Your task to perform on an android device: open app "Google Play Music" Image 0: 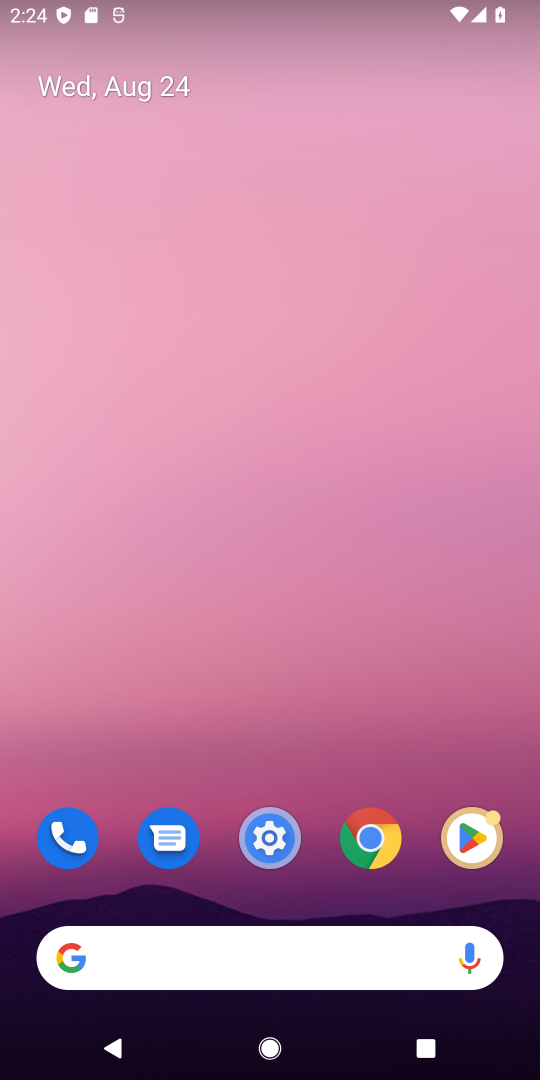
Step 0: drag from (454, 592) to (465, 66)
Your task to perform on an android device: open app "Google Play Music" Image 1: 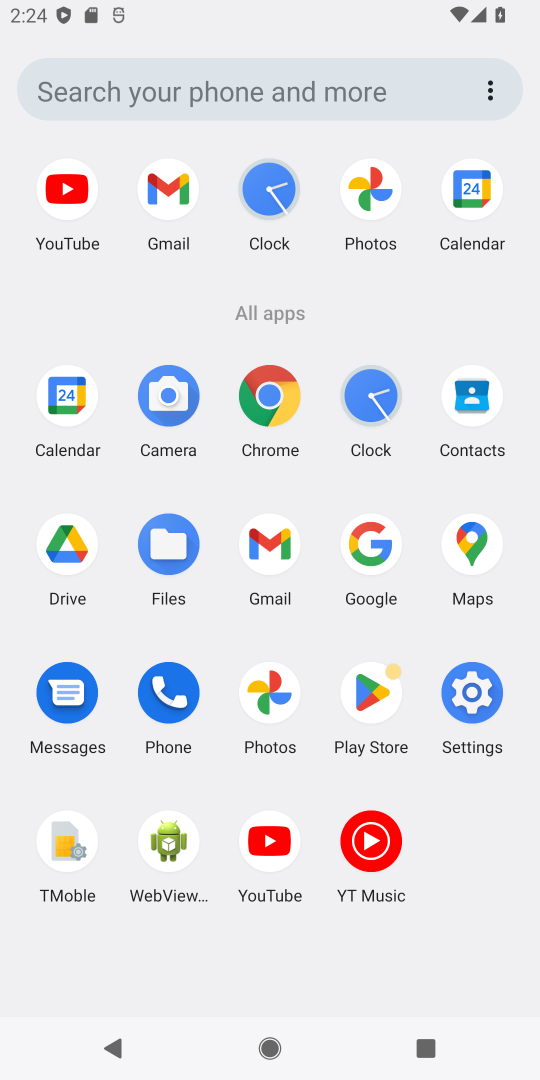
Step 1: click (360, 697)
Your task to perform on an android device: open app "Google Play Music" Image 2: 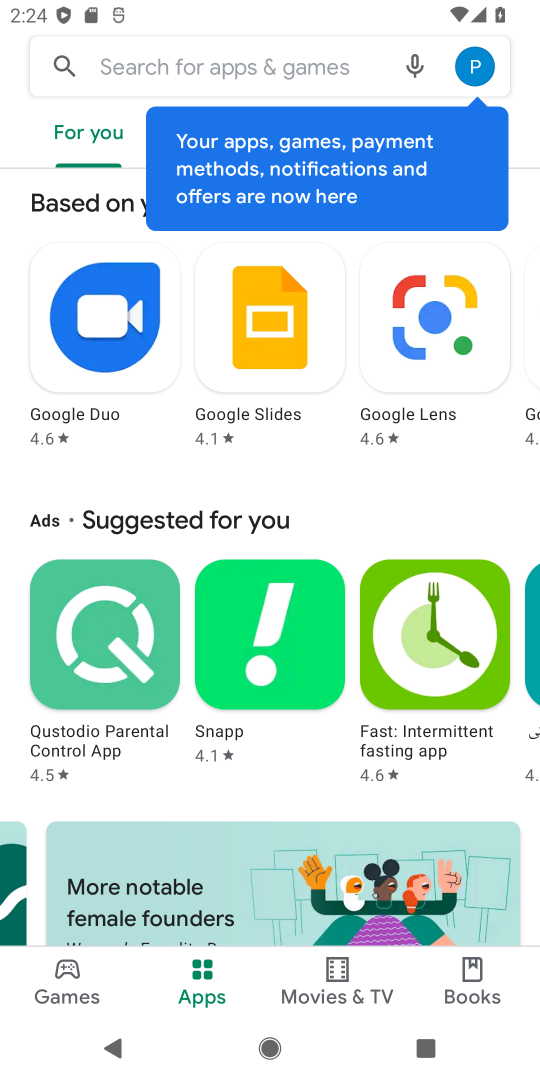
Step 2: click (261, 66)
Your task to perform on an android device: open app "Google Play Music" Image 3: 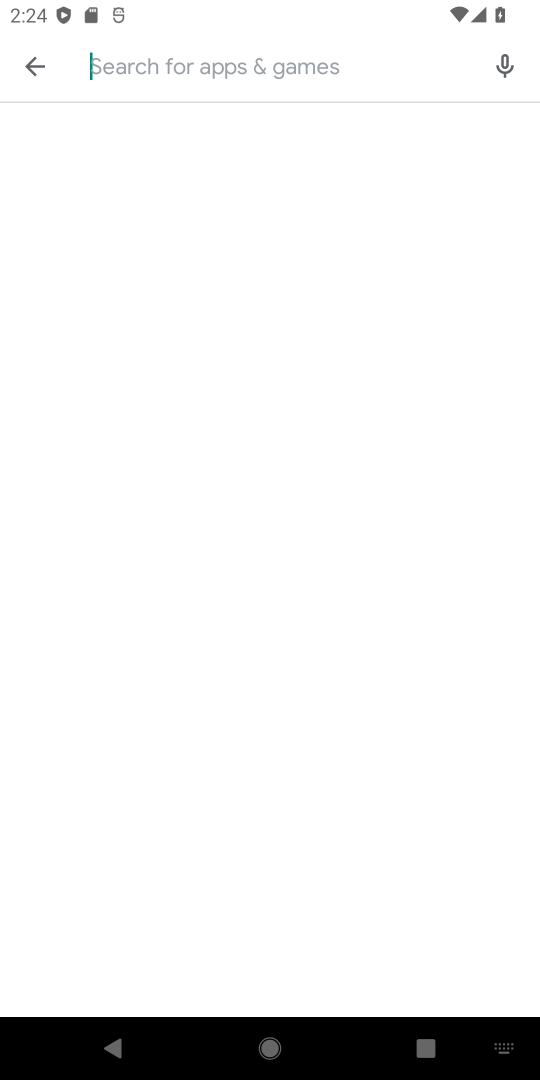
Step 3: press enter
Your task to perform on an android device: open app "Google Play Music" Image 4: 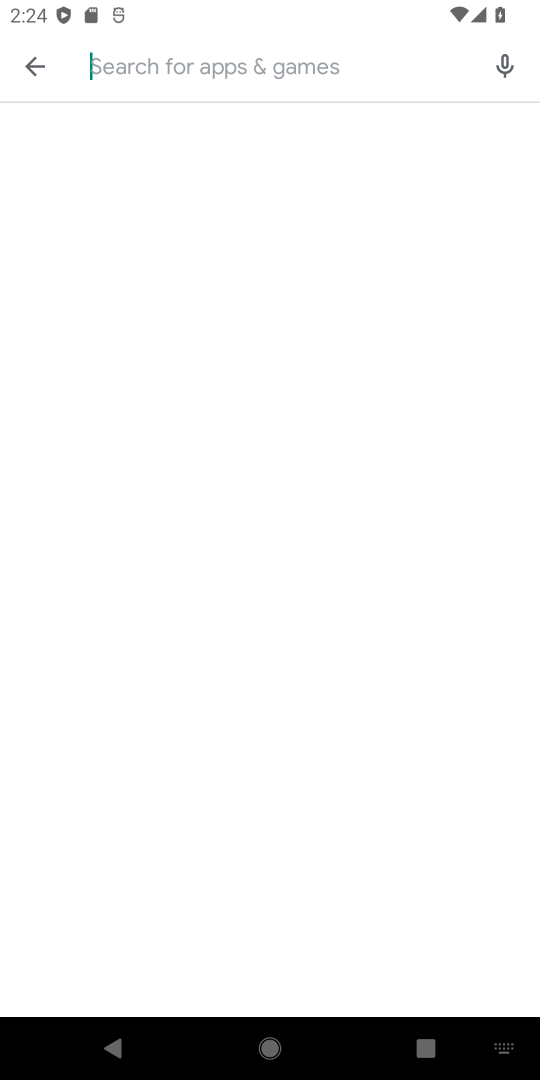
Step 4: type "Google Play Music"
Your task to perform on an android device: open app "Google Play Music" Image 5: 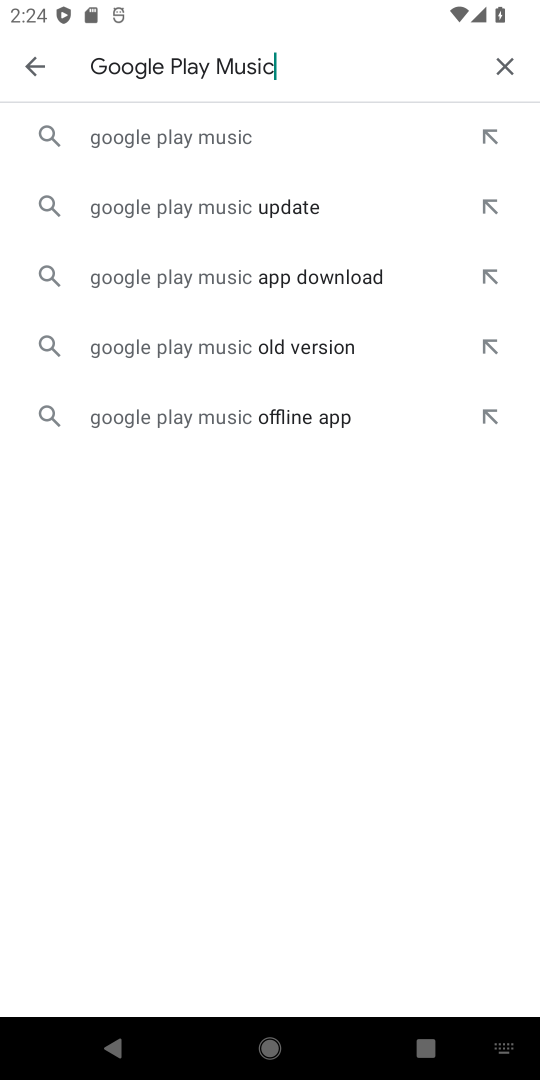
Step 5: click (219, 145)
Your task to perform on an android device: open app "Google Play Music" Image 6: 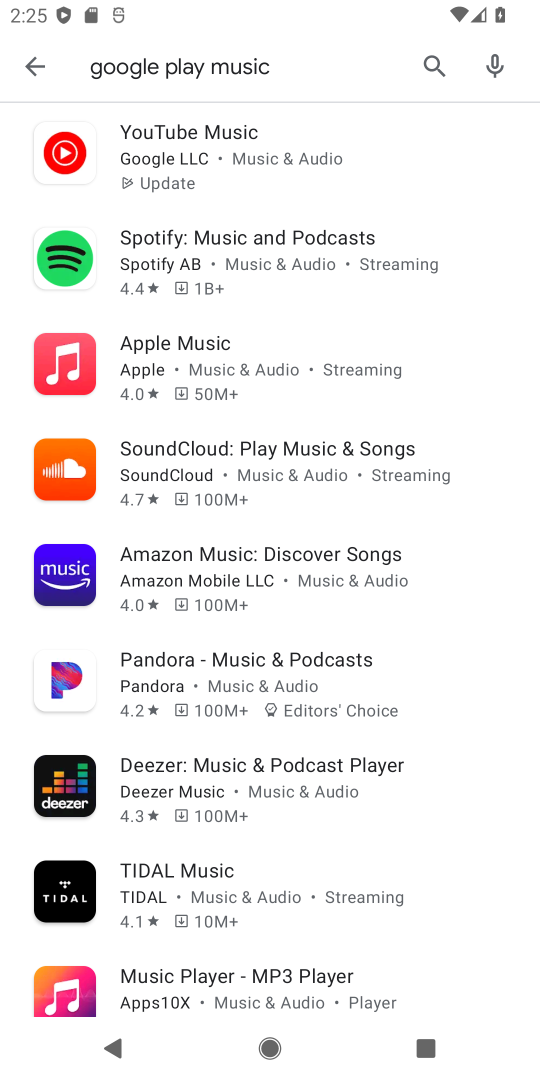
Step 6: task complete